Your task to perform on an android device: Open CNN.com Image 0: 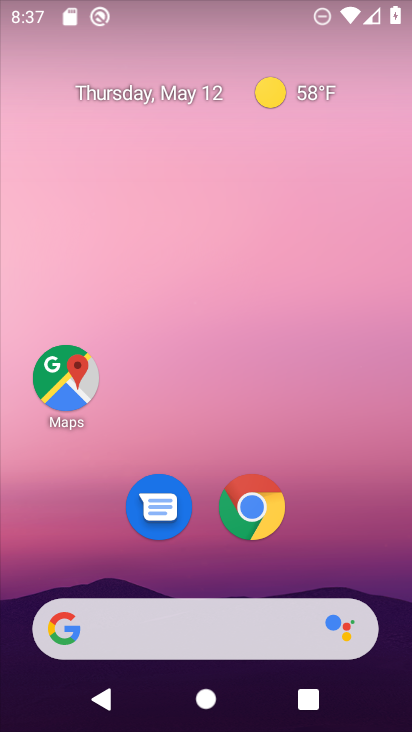
Step 0: click (248, 499)
Your task to perform on an android device: Open CNN.com Image 1: 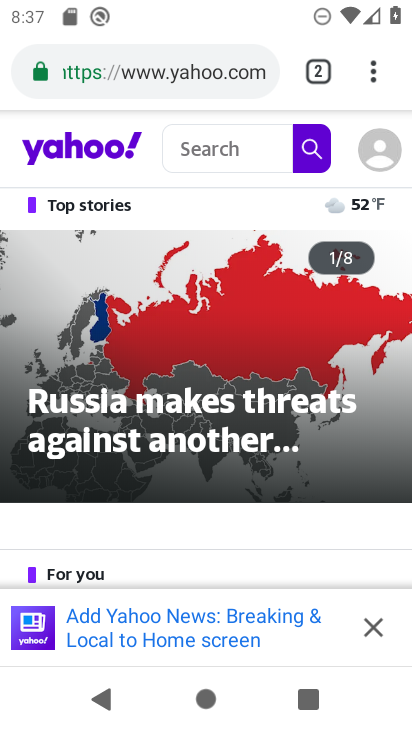
Step 1: click (319, 72)
Your task to perform on an android device: Open CNN.com Image 2: 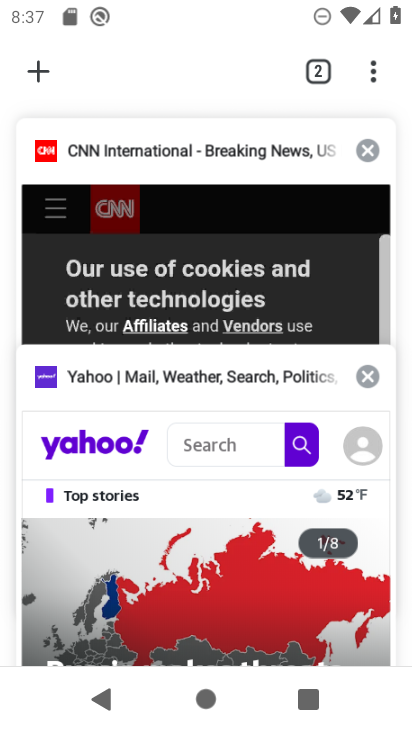
Step 2: click (190, 183)
Your task to perform on an android device: Open CNN.com Image 3: 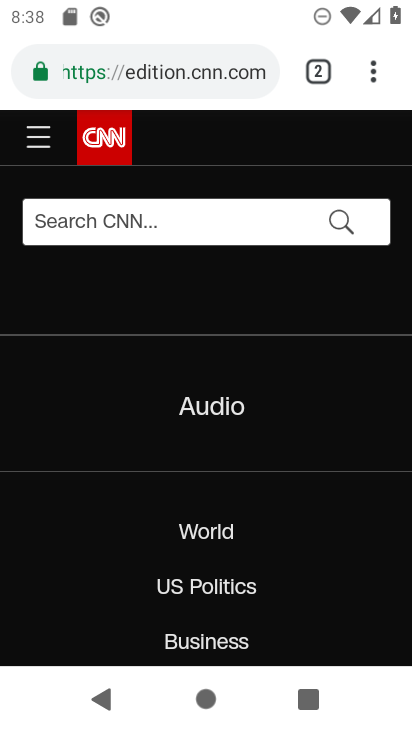
Step 3: task complete